Your task to perform on an android device: Check the weather Image 0: 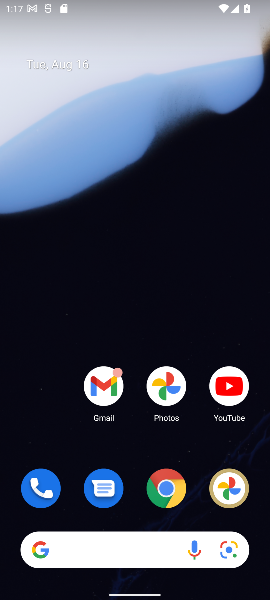
Step 0: click (109, 558)
Your task to perform on an android device: Check the weather Image 1: 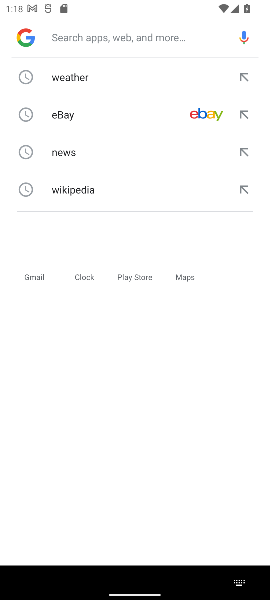
Step 1: press enter
Your task to perform on an android device: Check the weather Image 2: 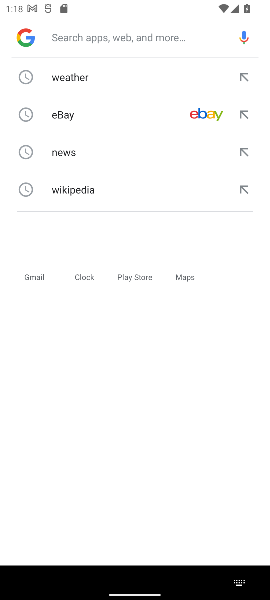
Step 2: type "Check the weather"
Your task to perform on an android device: Check the weather Image 3: 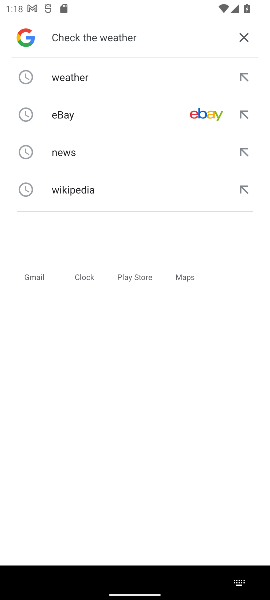
Step 3: click (116, 580)
Your task to perform on an android device: Check the weather Image 4: 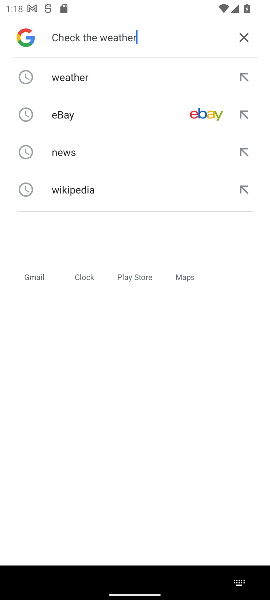
Step 4: press enter
Your task to perform on an android device: Check the weather Image 5: 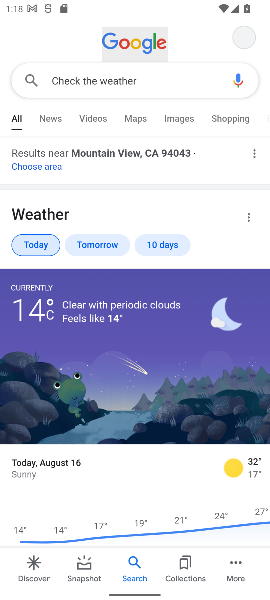
Step 5: task complete